Your task to perform on an android device: turn pop-ups on in chrome Image 0: 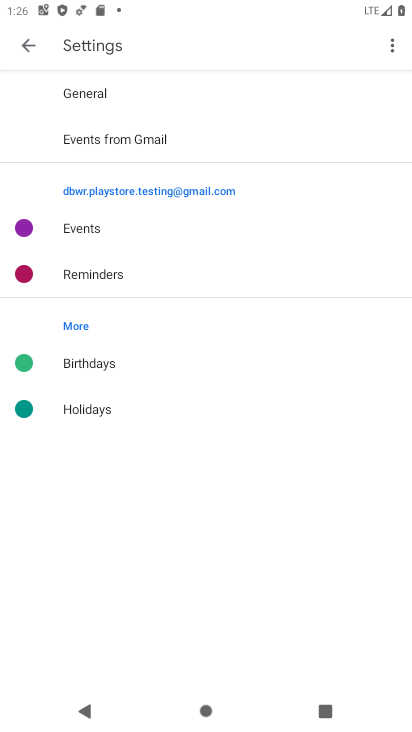
Step 0: press home button
Your task to perform on an android device: turn pop-ups on in chrome Image 1: 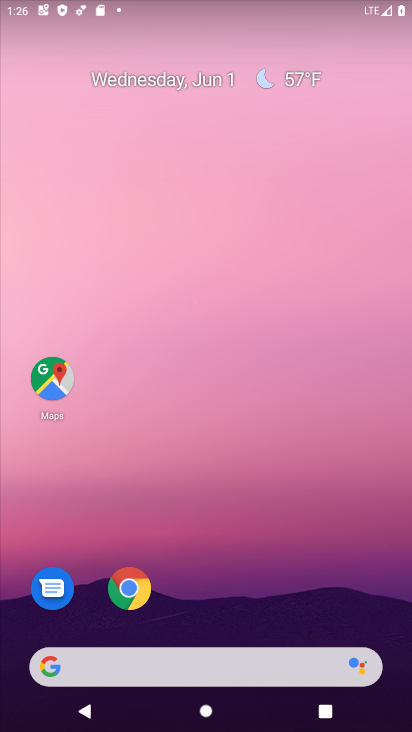
Step 1: click (131, 593)
Your task to perform on an android device: turn pop-ups on in chrome Image 2: 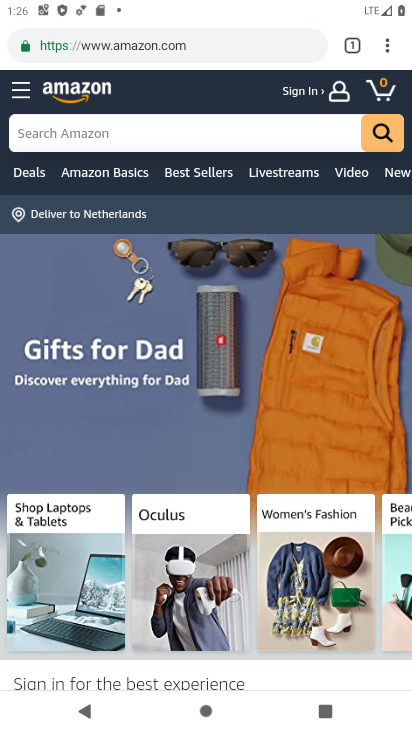
Step 2: click (399, 35)
Your task to perform on an android device: turn pop-ups on in chrome Image 3: 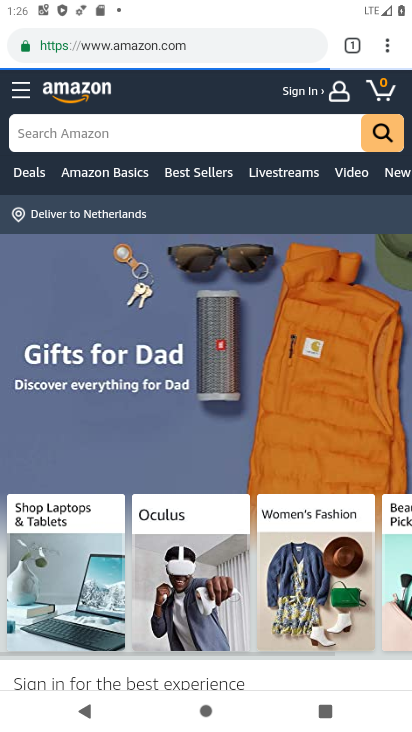
Step 3: click (382, 44)
Your task to perform on an android device: turn pop-ups on in chrome Image 4: 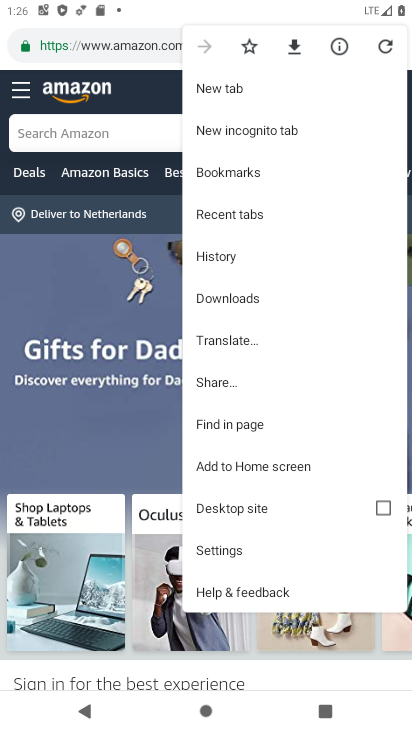
Step 4: click (239, 552)
Your task to perform on an android device: turn pop-ups on in chrome Image 5: 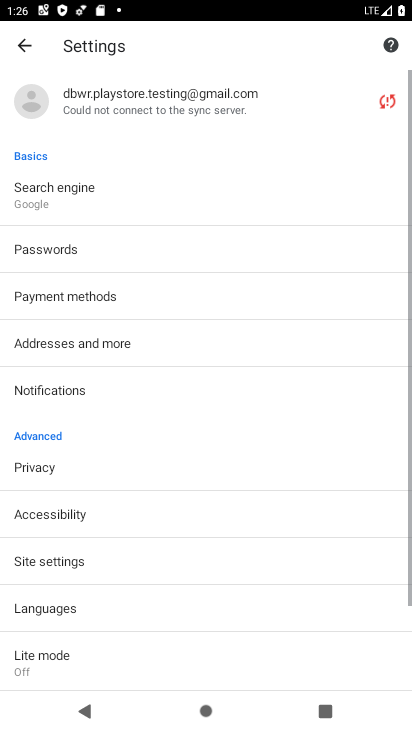
Step 5: drag from (220, 568) to (222, 216)
Your task to perform on an android device: turn pop-ups on in chrome Image 6: 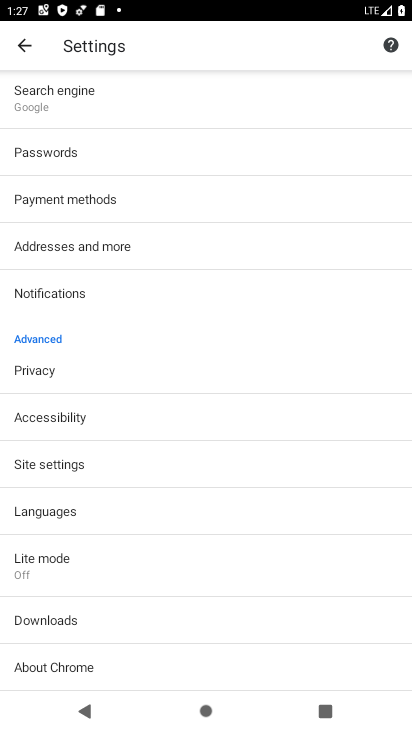
Step 6: click (102, 464)
Your task to perform on an android device: turn pop-ups on in chrome Image 7: 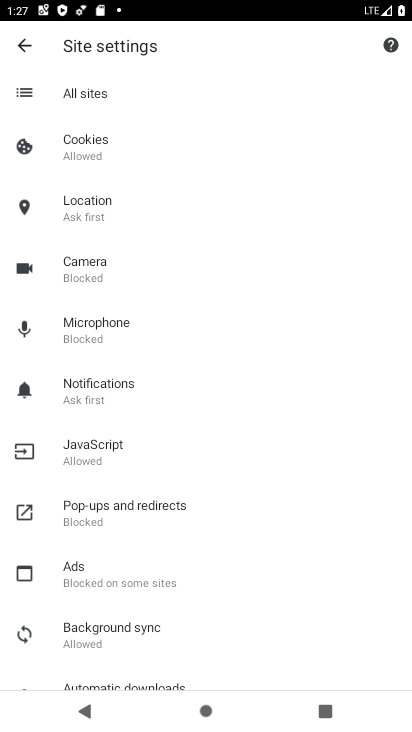
Step 7: drag from (235, 583) to (228, 270)
Your task to perform on an android device: turn pop-ups on in chrome Image 8: 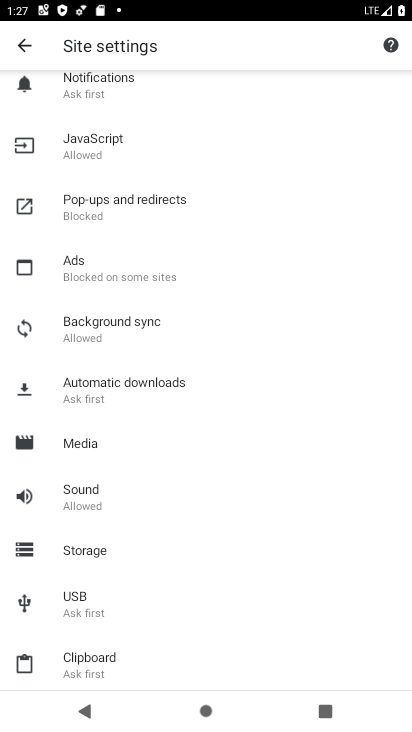
Step 8: click (136, 205)
Your task to perform on an android device: turn pop-ups on in chrome Image 9: 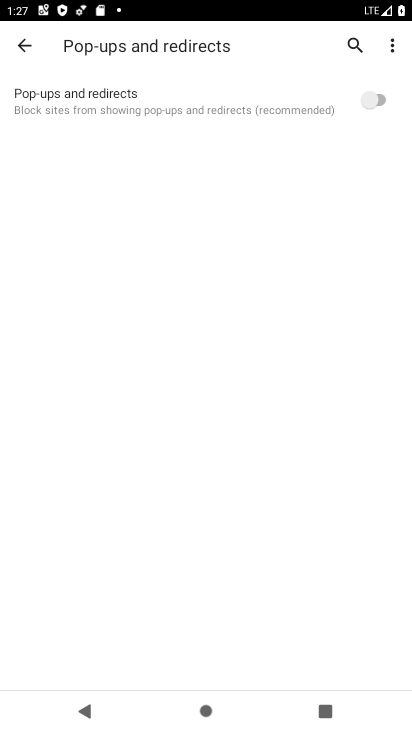
Step 9: click (386, 100)
Your task to perform on an android device: turn pop-ups on in chrome Image 10: 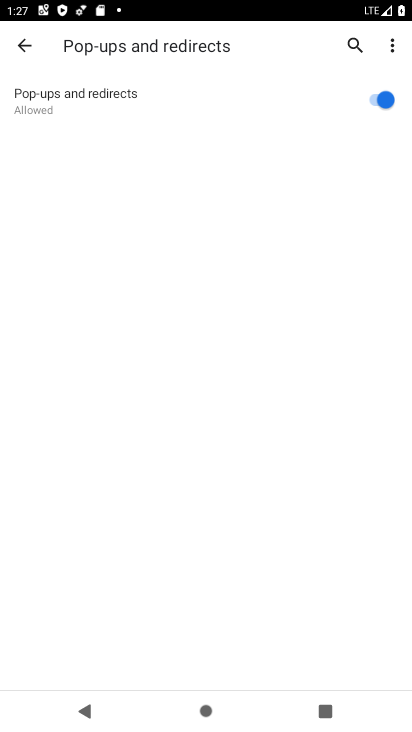
Step 10: task complete